Your task to perform on an android device: change the clock style Image 0: 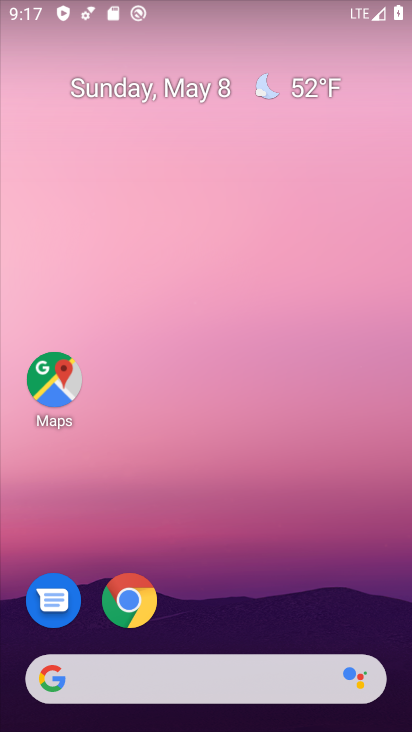
Step 0: drag from (355, 608) to (341, 8)
Your task to perform on an android device: change the clock style Image 1: 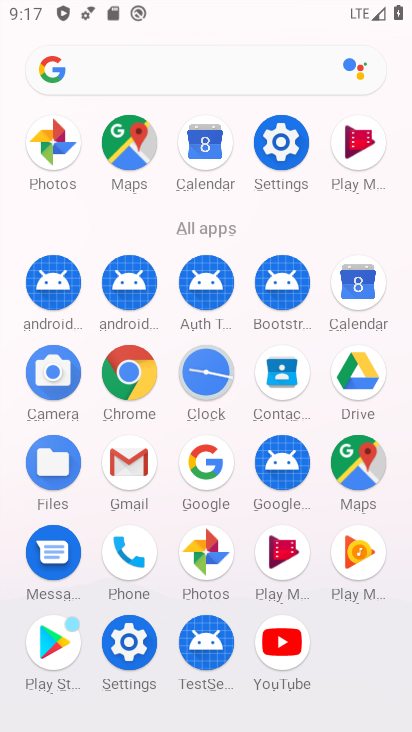
Step 1: click (196, 372)
Your task to perform on an android device: change the clock style Image 2: 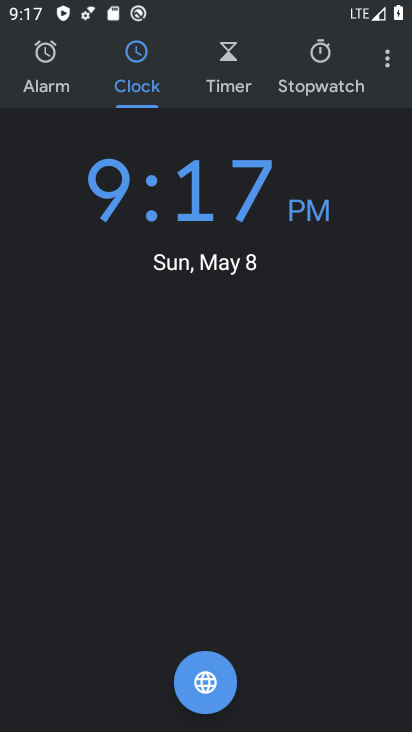
Step 2: click (385, 67)
Your task to perform on an android device: change the clock style Image 3: 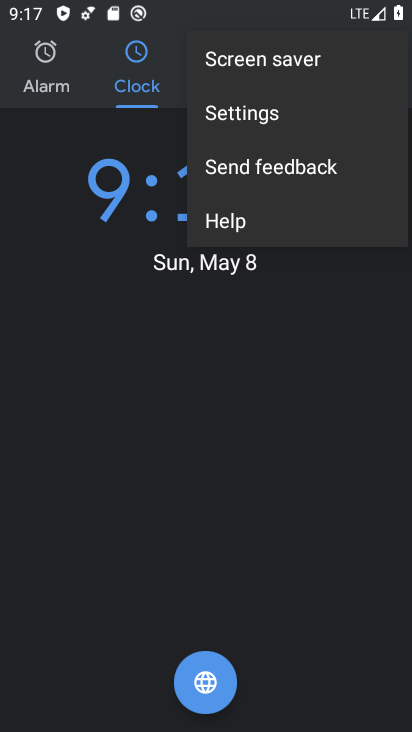
Step 3: click (245, 119)
Your task to perform on an android device: change the clock style Image 4: 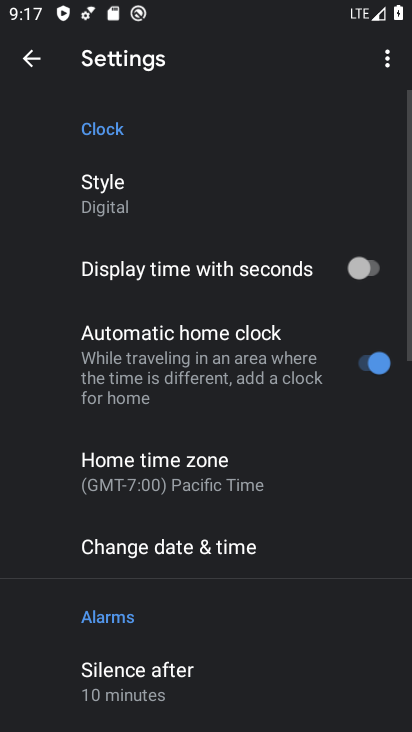
Step 4: click (131, 197)
Your task to perform on an android device: change the clock style Image 5: 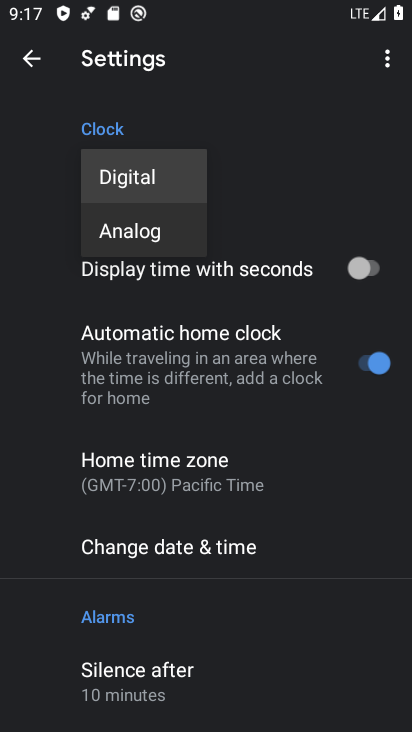
Step 5: click (128, 234)
Your task to perform on an android device: change the clock style Image 6: 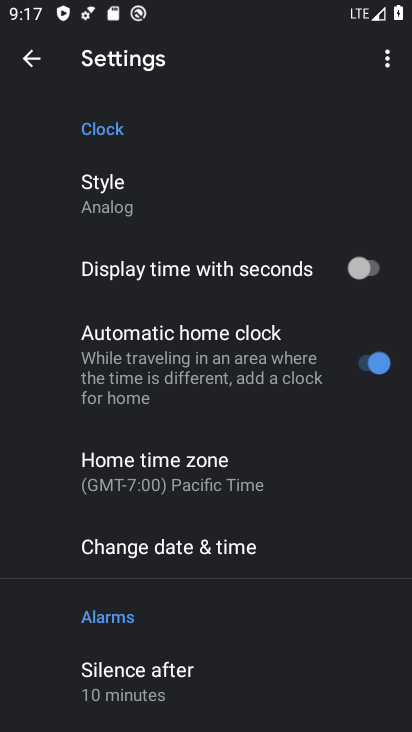
Step 6: task complete